Your task to perform on an android device: remove spam from my inbox in the gmail app Image 0: 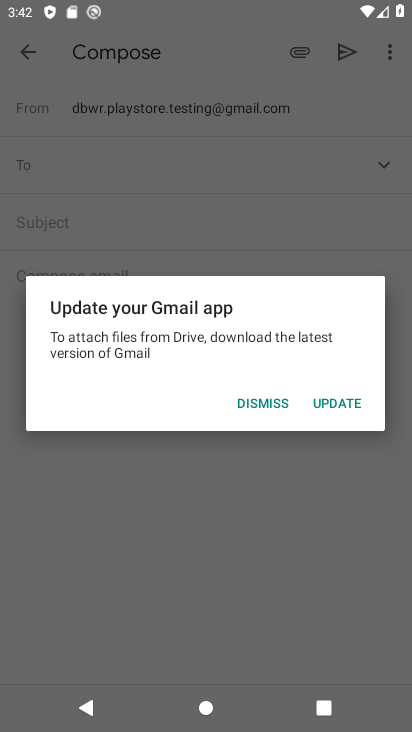
Step 0: press home button
Your task to perform on an android device: remove spam from my inbox in the gmail app Image 1: 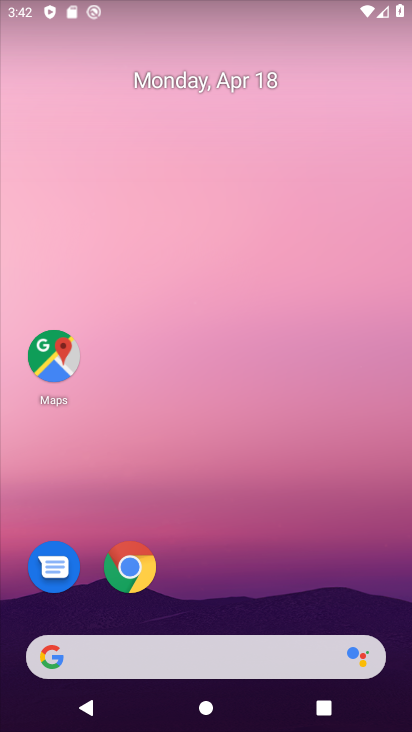
Step 1: drag from (237, 560) to (218, 177)
Your task to perform on an android device: remove spam from my inbox in the gmail app Image 2: 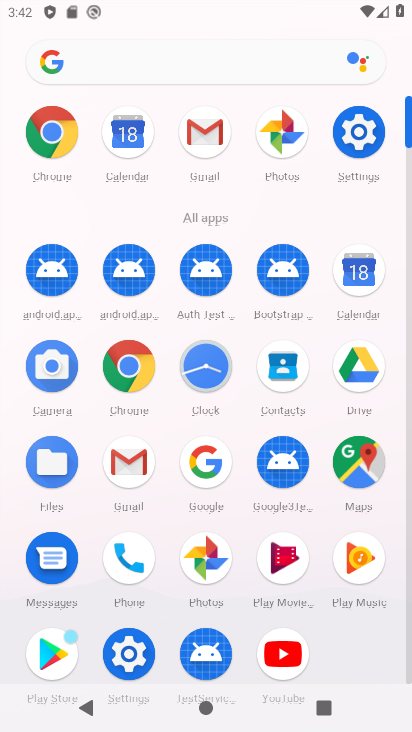
Step 2: click (128, 452)
Your task to perform on an android device: remove spam from my inbox in the gmail app Image 3: 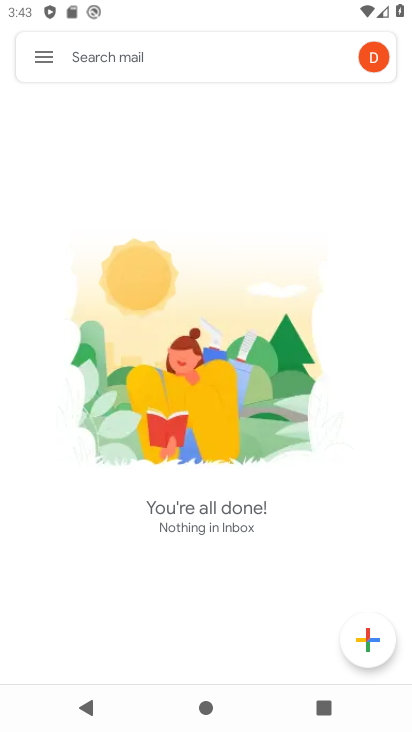
Step 3: click (44, 55)
Your task to perform on an android device: remove spam from my inbox in the gmail app Image 4: 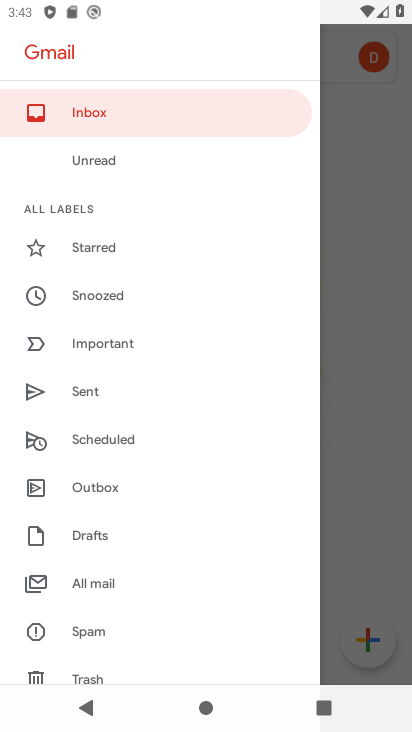
Step 4: click (117, 630)
Your task to perform on an android device: remove spam from my inbox in the gmail app Image 5: 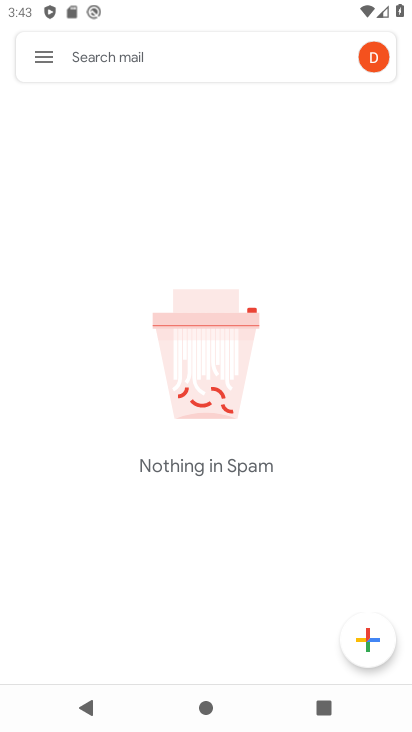
Step 5: task complete